Your task to perform on an android device: Open Chrome and go to settings Image 0: 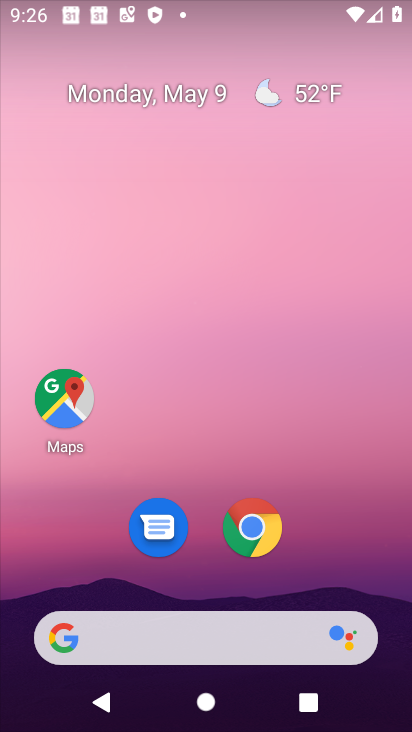
Step 0: click (253, 531)
Your task to perform on an android device: Open Chrome and go to settings Image 1: 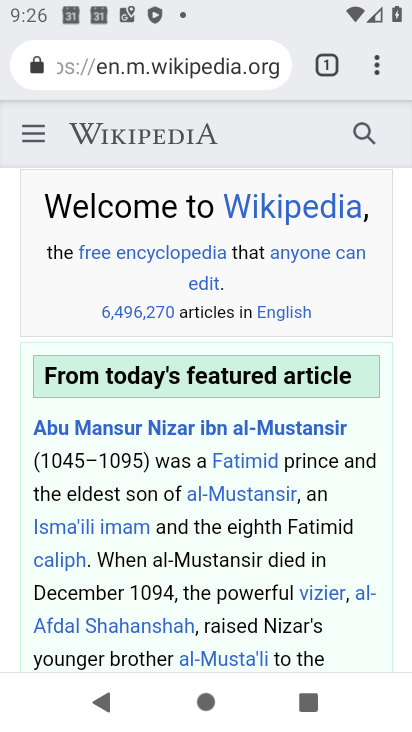
Step 1: click (363, 73)
Your task to perform on an android device: Open Chrome and go to settings Image 2: 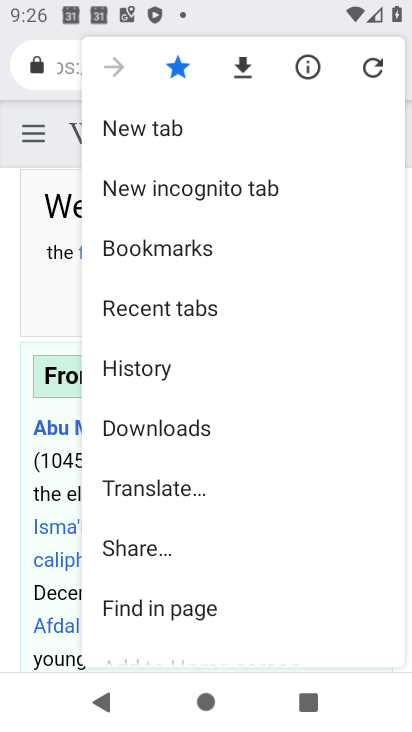
Step 2: drag from (301, 620) to (323, 188)
Your task to perform on an android device: Open Chrome and go to settings Image 3: 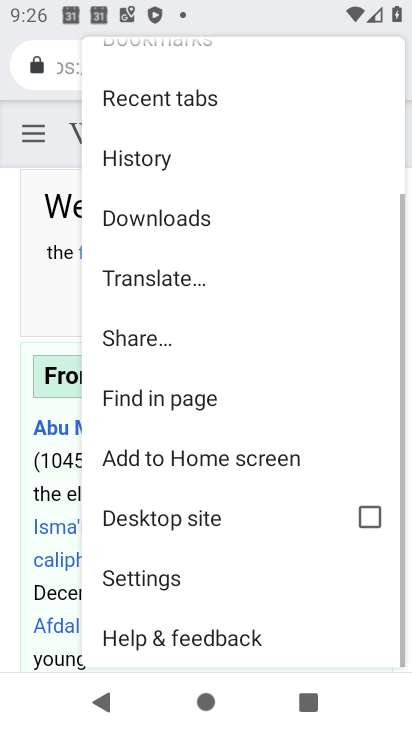
Step 3: click (188, 564)
Your task to perform on an android device: Open Chrome and go to settings Image 4: 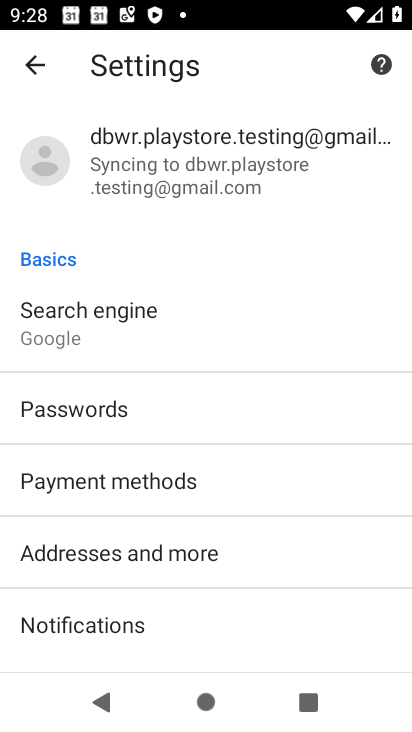
Step 4: task complete